Your task to perform on an android device: allow notifications from all sites in the chrome app Image 0: 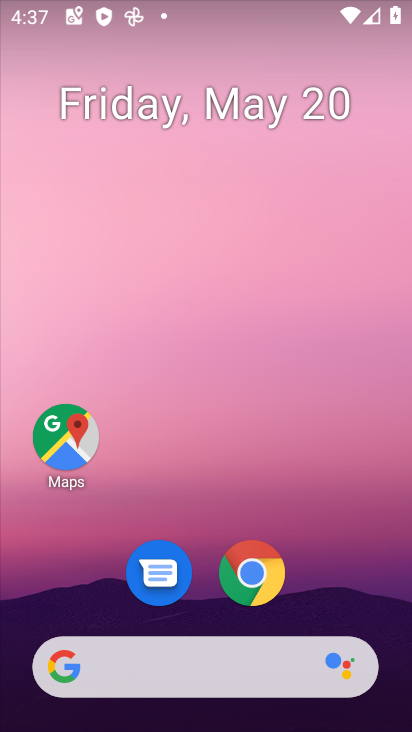
Step 0: click (252, 573)
Your task to perform on an android device: allow notifications from all sites in the chrome app Image 1: 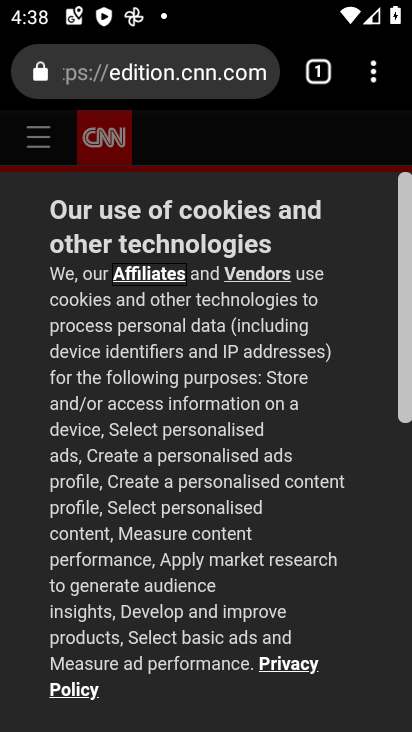
Step 1: click (374, 77)
Your task to perform on an android device: allow notifications from all sites in the chrome app Image 2: 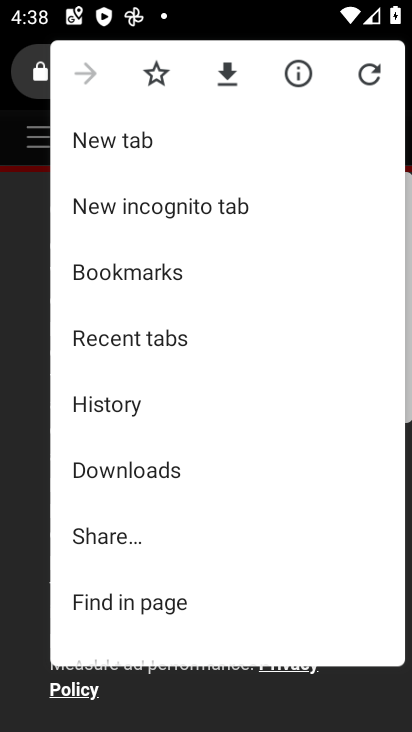
Step 2: drag from (262, 569) to (238, 164)
Your task to perform on an android device: allow notifications from all sites in the chrome app Image 3: 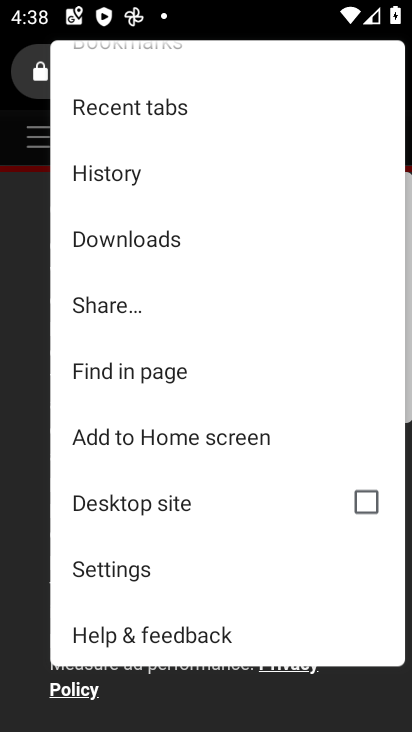
Step 3: click (134, 572)
Your task to perform on an android device: allow notifications from all sites in the chrome app Image 4: 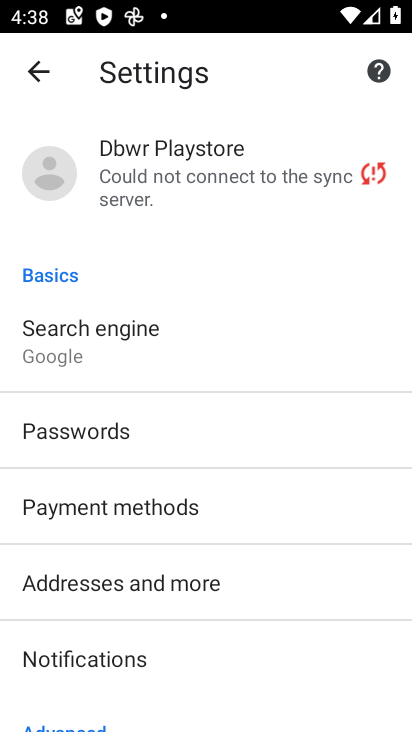
Step 4: drag from (238, 681) to (237, 305)
Your task to perform on an android device: allow notifications from all sites in the chrome app Image 5: 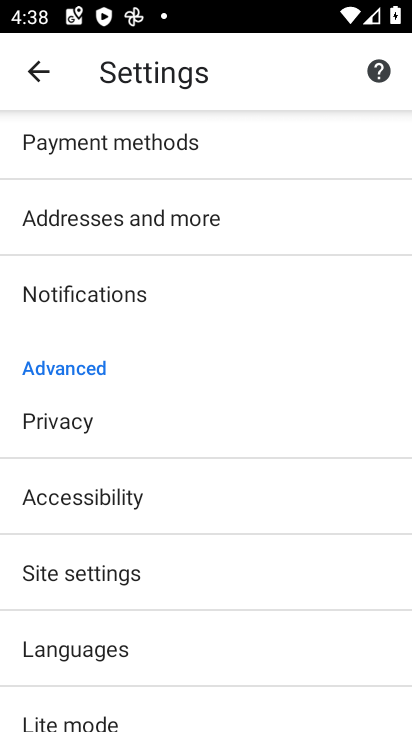
Step 5: click (74, 569)
Your task to perform on an android device: allow notifications from all sites in the chrome app Image 6: 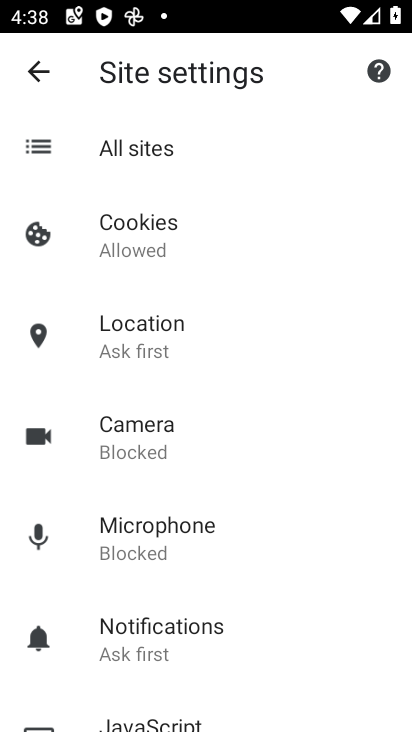
Step 6: drag from (301, 621) to (265, 344)
Your task to perform on an android device: allow notifications from all sites in the chrome app Image 7: 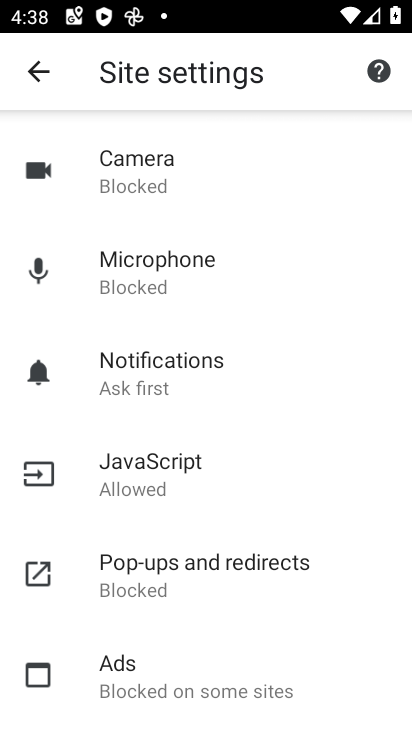
Step 7: click (138, 374)
Your task to perform on an android device: allow notifications from all sites in the chrome app Image 8: 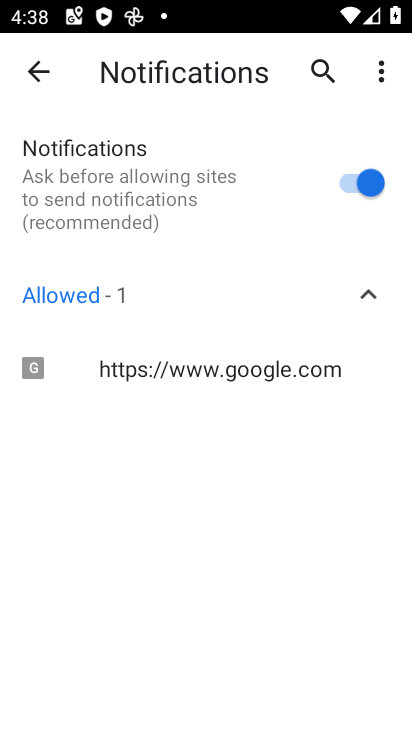
Step 8: task complete